Your task to perform on an android device: check battery use Image 0: 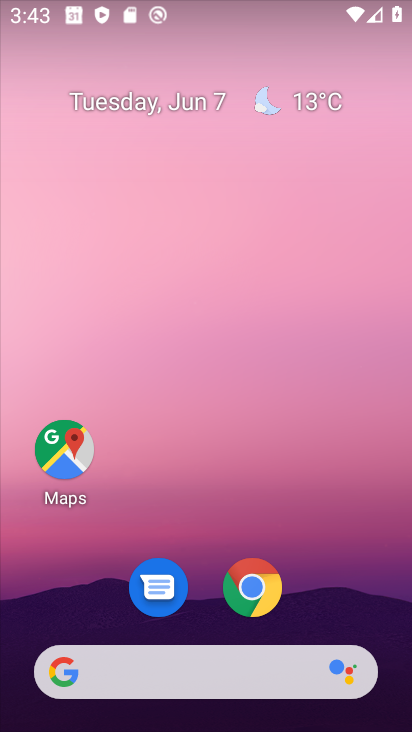
Step 0: drag from (240, 573) to (245, 413)
Your task to perform on an android device: check battery use Image 1: 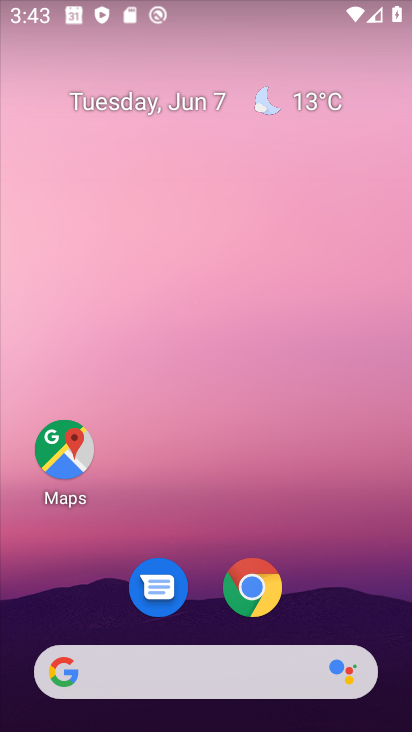
Step 1: drag from (232, 642) to (272, 269)
Your task to perform on an android device: check battery use Image 2: 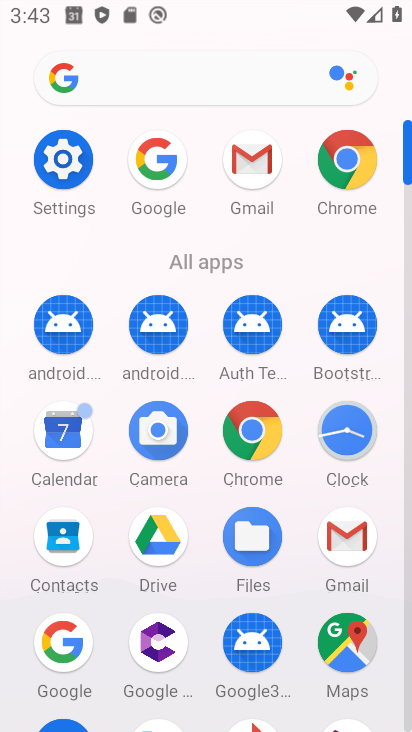
Step 2: click (86, 172)
Your task to perform on an android device: check battery use Image 3: 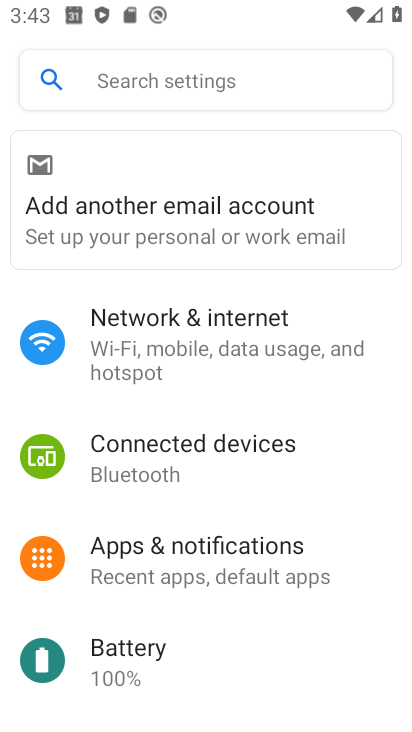
Step 3: drag from (181, 495) to (207, 143)
Your task to perform on an android device: check battery use Image 4: 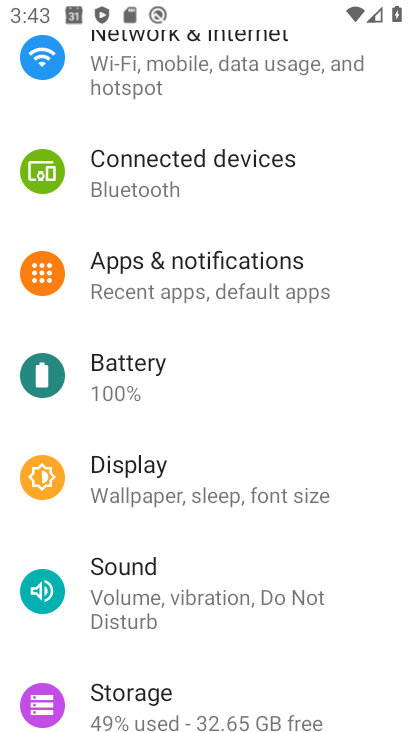
Step 4: click (191, 371)
Your task to perform on an android device: check battery use Image 5: 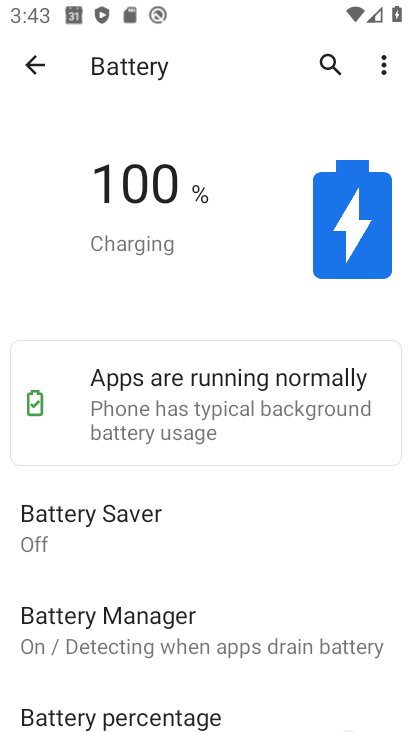
Step 5: task complete